Your task to perform on an android device: turn on sleep mode Image 0: 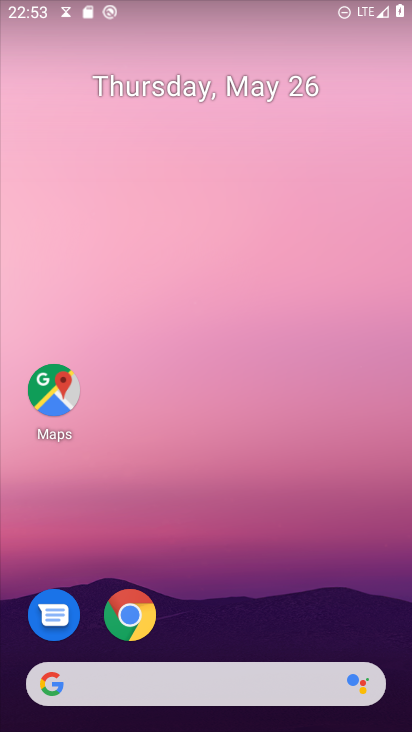
Step 0: drag from (198, 641) to (211, 274)
Your task to perform on an android device: turn on sleep mode Image 1: 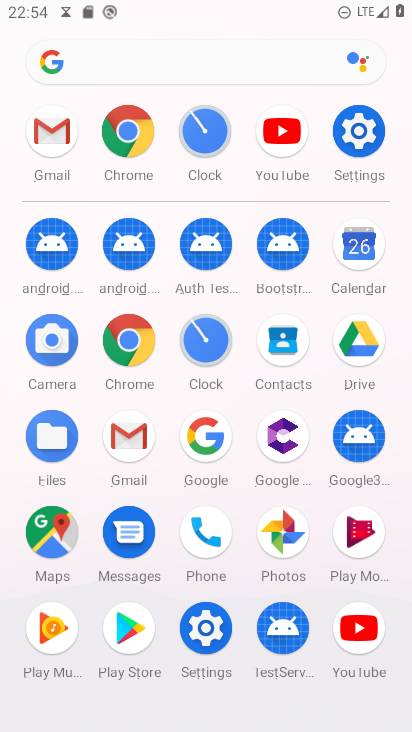
Step 1: click (364, 133)
Your task to perform on an android device: turn on sleep mode Image 2: 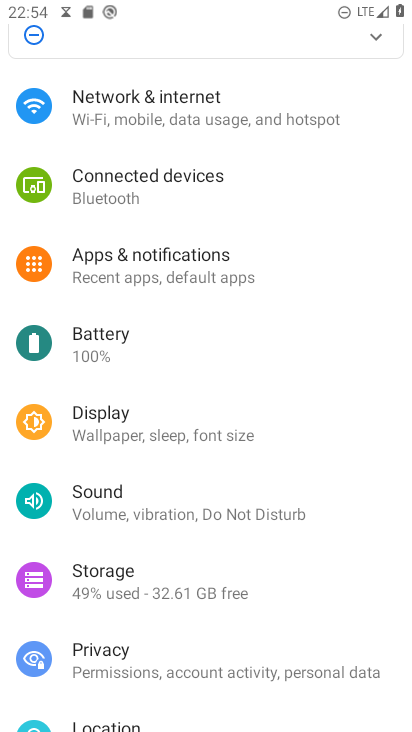
Step 2: task complete